Your task to perform on an android device: Open eBay Image 0: 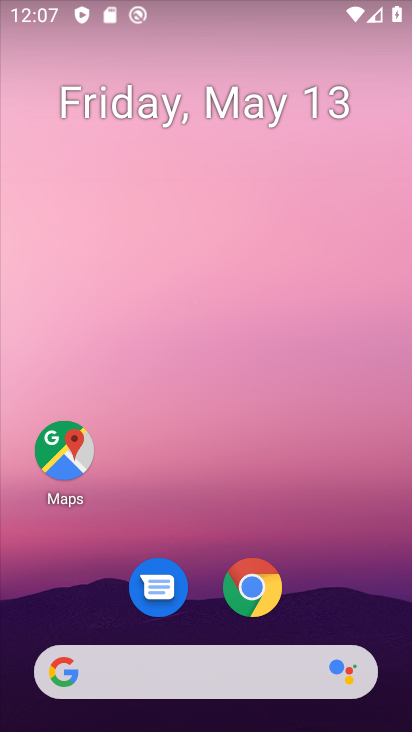
Step 0: click (247, 594)
Your task to perform on an android device: Open eBay Image 1: 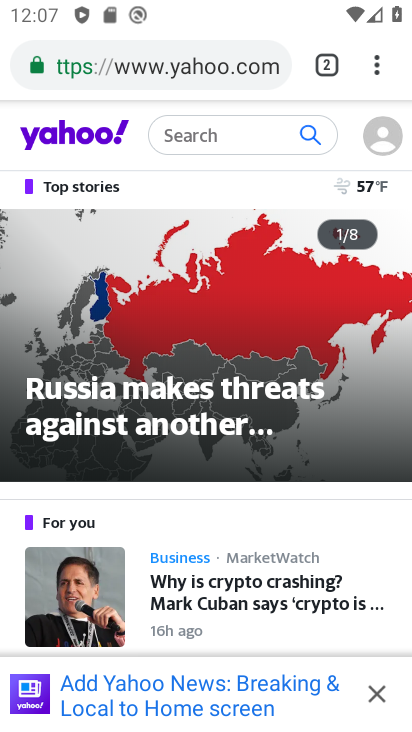
Step 1: click (317, 63)
Your task to perform on an android device: Open eBay Image 2: 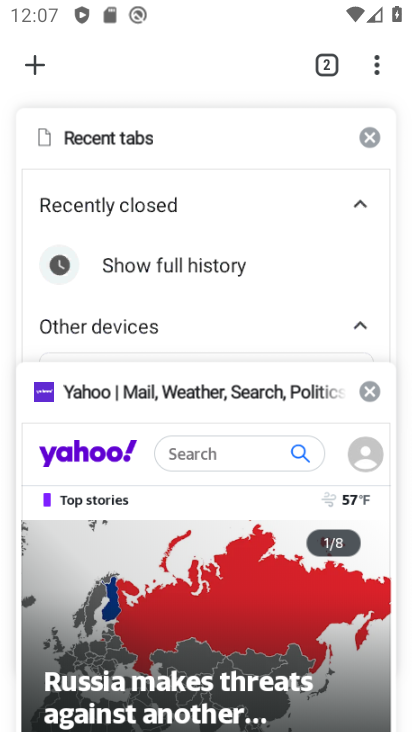
Step 2: click (40, 54)
Your task to perform on an android device: Open eBay Image 3: 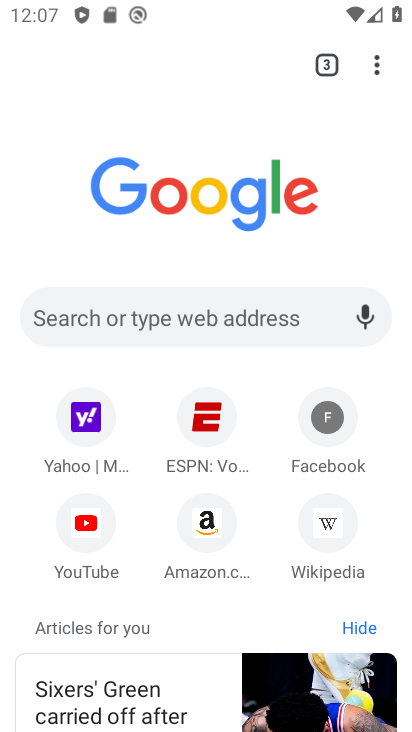
Step 3: click (165, 318)
Your task to perform on an android device: Open eBay Image 4: 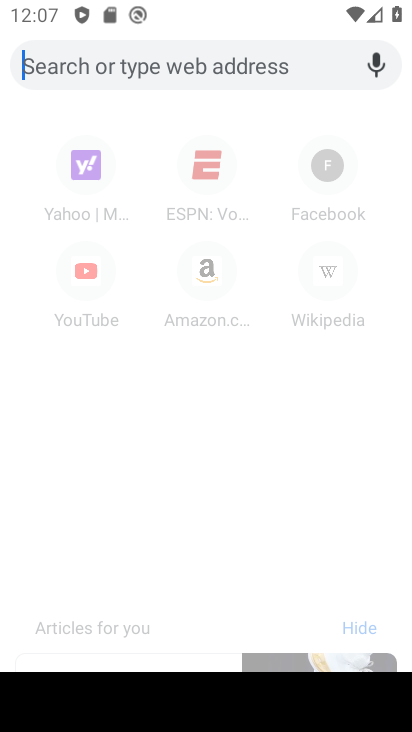
Step 4: type "ebay"
Your task to perform on an android device: Open eBay Image 5: 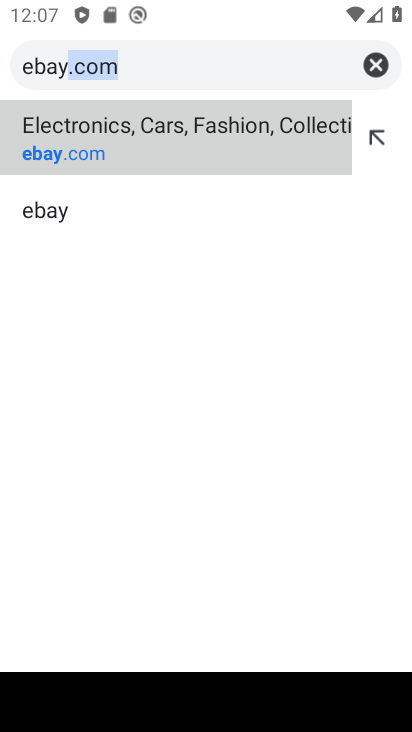
Step 5: click (69, 129)
Your task to perform on an android device: Open eBay Image 6: 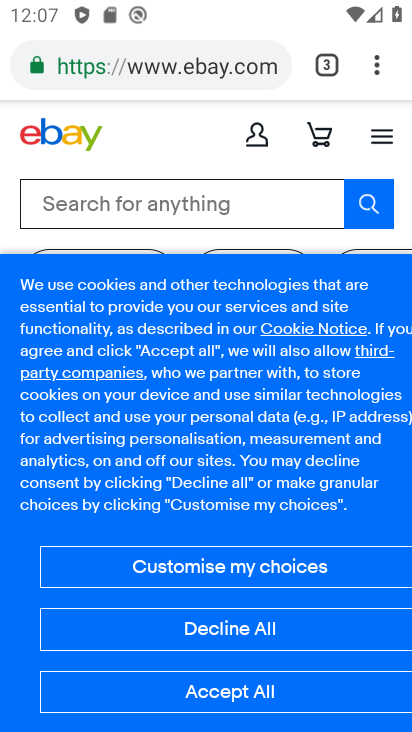
Step 6: task complete